Your task to perform on an android device: Go to Yahoo.com Image 0: 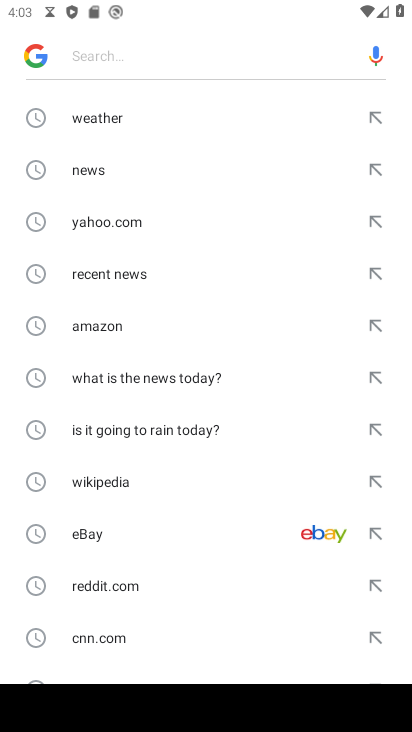
Step 0: press back button
Your task to perform on an android device: Go to Yahoo.com Image 1: 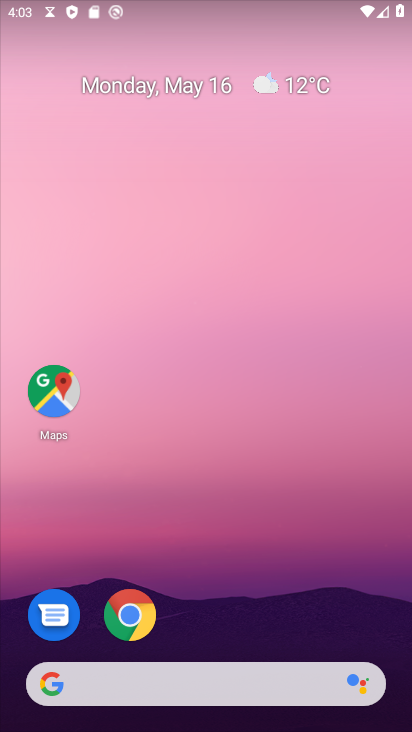
Step 1: click (145, 611)
Your task to perform on an android device: Go to Yahoo.com Image 2: 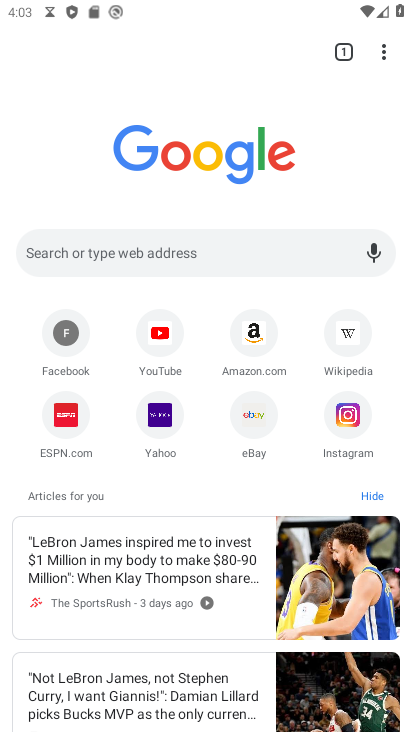
Step 2: click (166, 420)
Your task to perform on an android device: Go to Yahoo.com Image 3: 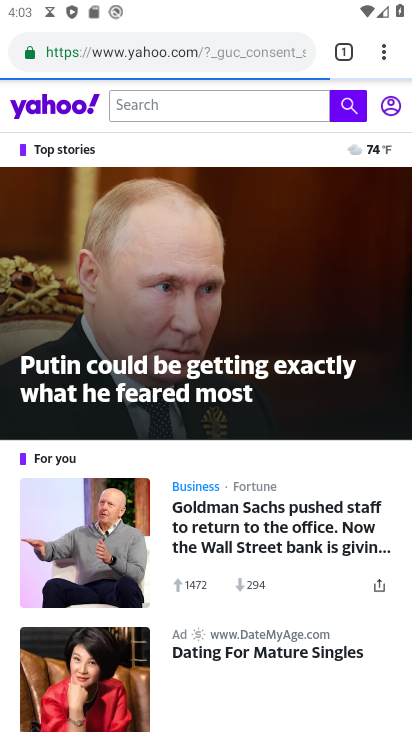
Step 3: task complete